Your task to perform on an android device: turn off location Image 0: 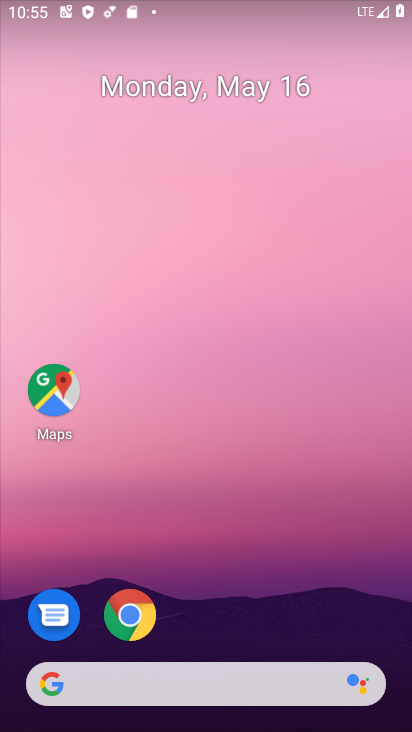
Step 0: drag from (240, 650) to (339, 129)
Your task to perform on an android device: turn off location Image 1: 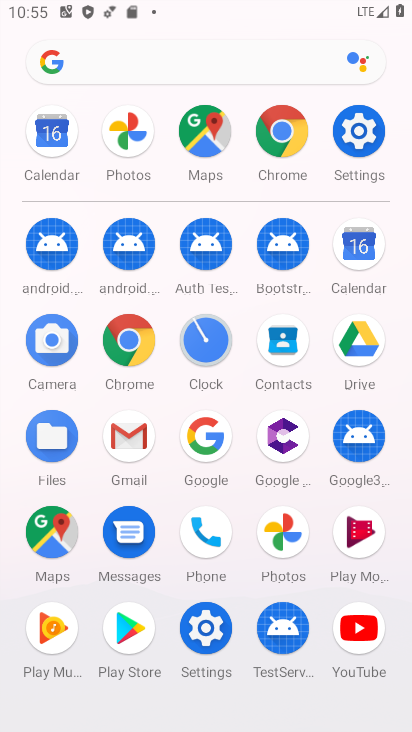
Step 1: click (364, 172)
Your task to perform on an android device: turn off location Image 2: 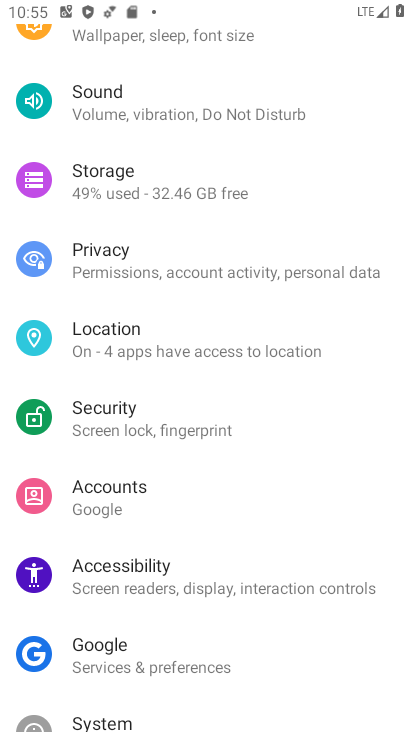
Step 2: drag from (182, 631) to (220, 298)
Your task to perform on an android device: turn off location Image 3: 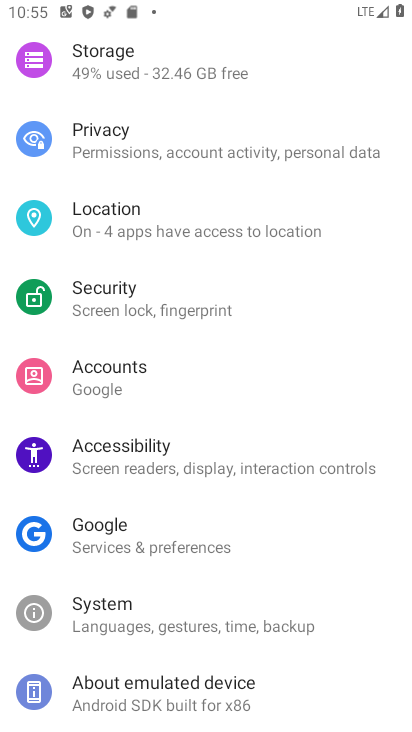
Step 3: drag from (209, 621) to (208, 657)
Your task to perform on an android device: turn off location Image 4: 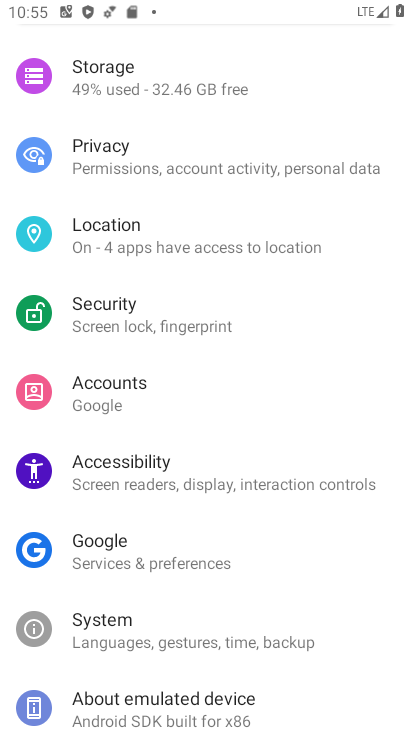
Step 4: click (264, 248)
Your task to perform on an android device: turn off location Image 5: 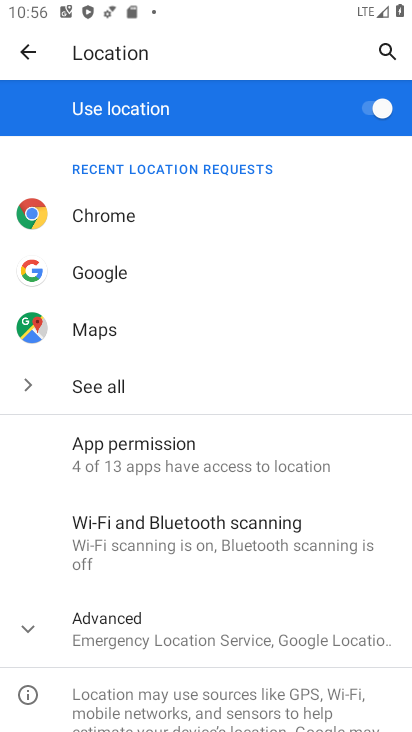
Step 5: click (340, 106)
Your task to perform on an android device: turn off location Image 6: 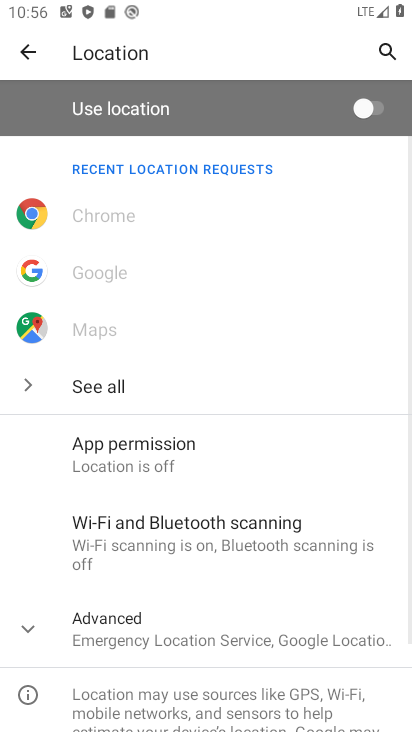
Step 6: task complete